Your task to perform on an android device: What's the weather going to be tomorrow? Image 0: 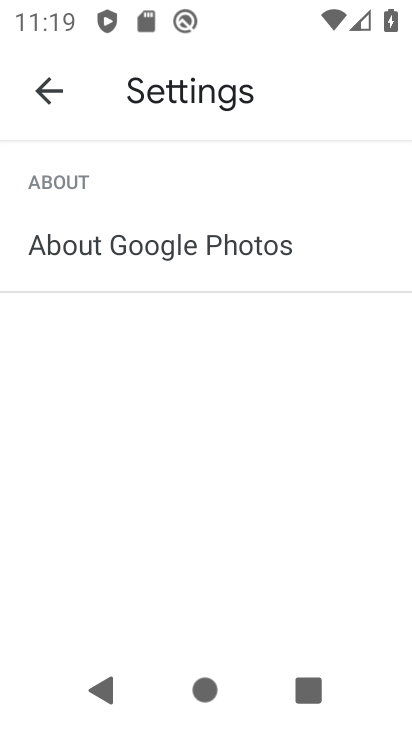
Step 0: press home button
Your task to perform on an android device: What's the weather going to be tomorrow? Image 1: 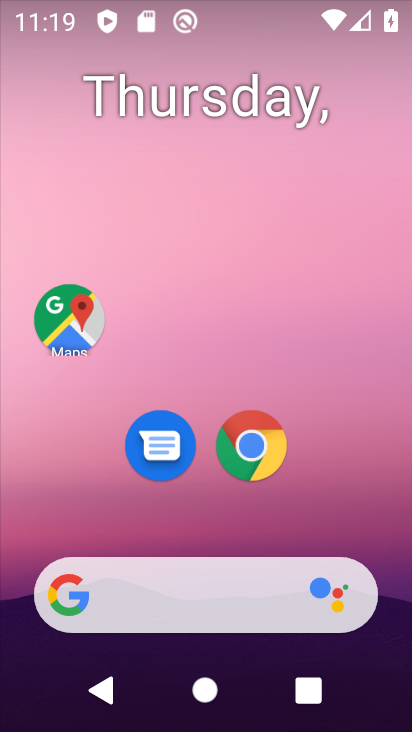
Step 1: drag from (212, 439) to (223, 116)
Your task to perform on an android device: What's the weather going to be tomorrow? Image 2: 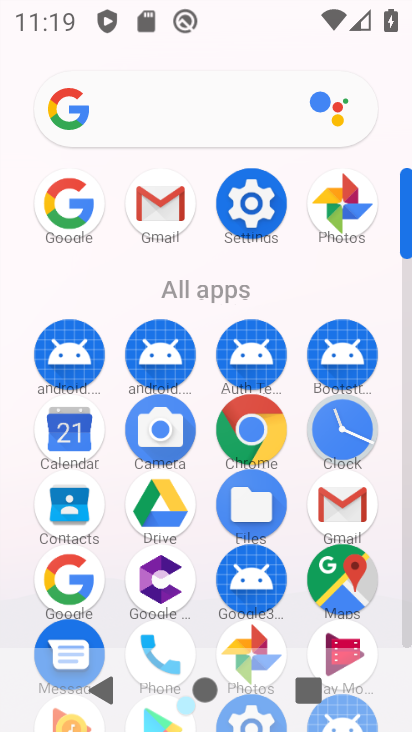
Step 2: click (81, 207)
Your task to perform on an android device: What's the weather going to be tomorrow? Image 3: 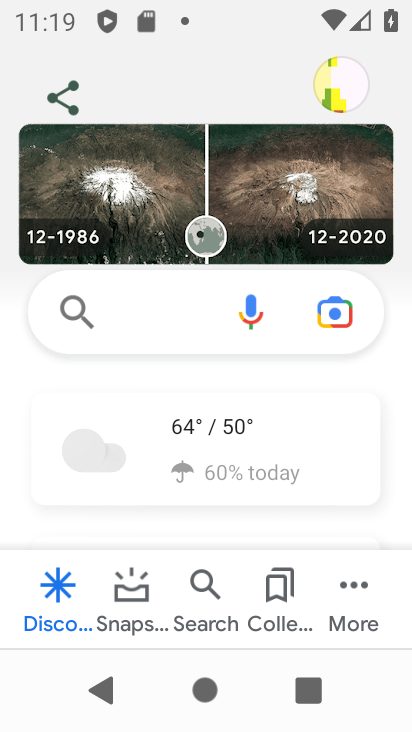
Step 3: click (227, 427)
Your task to perform on an android device: What's the weather going to be tomorrow? Image 4: 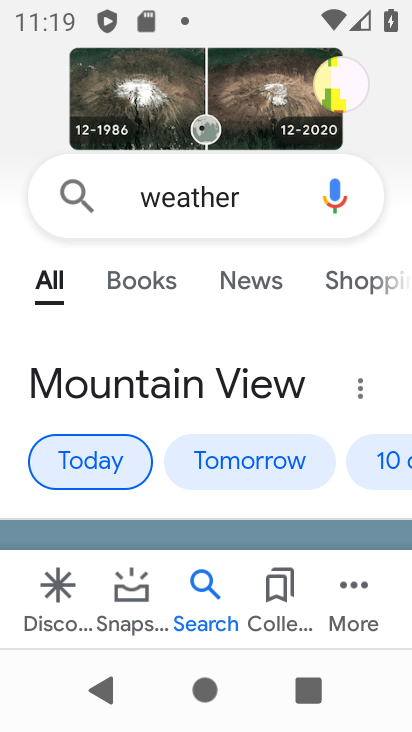
Step 4: click (246, 462)
Your task to perform on an android device: What's the weather going to be tomorrow? Image 5: 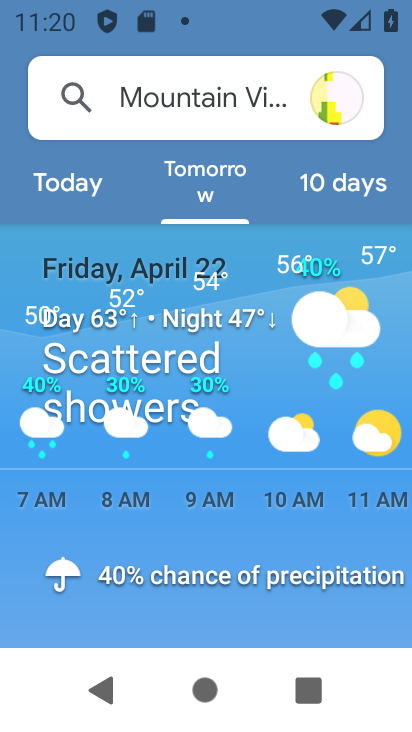
Step 5: task complete